Your task to perform on an android device: turn off airplane mode Image 0: 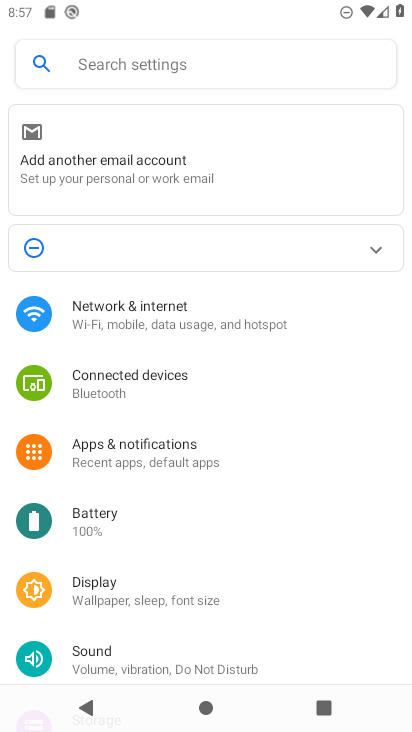
Step 0: press home button
Your task to perform on an android device: turn off airplane mode Image 1: 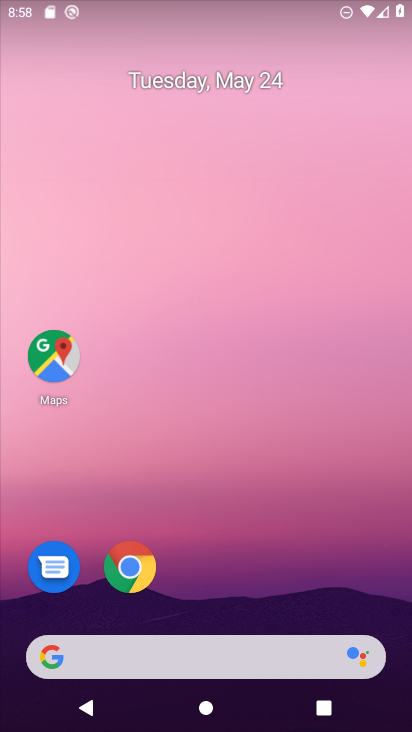
Step 1: task complete